Your task to perform on an android device: Go to Android settings Image 0: 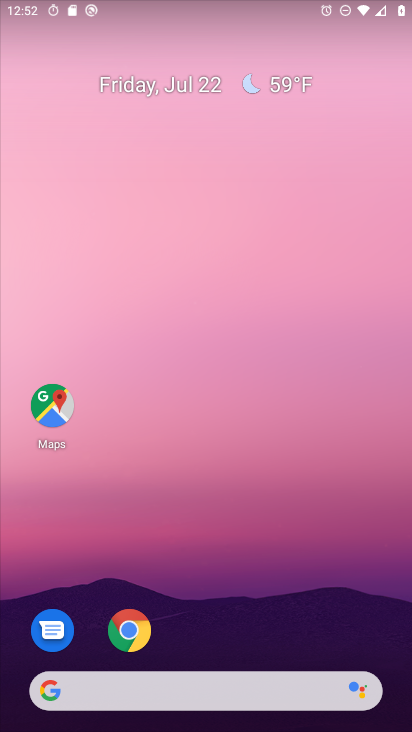
Step 0: press home button
Your task to perform on an android device: Go to Android settings Image 1: 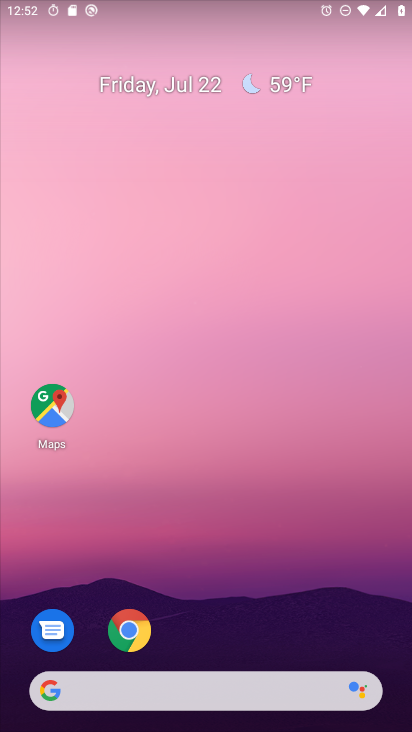
Step 1: drag from (266, 636) to (268, 203)
Your task to perform on an android device: Go to Android settings Image 2: 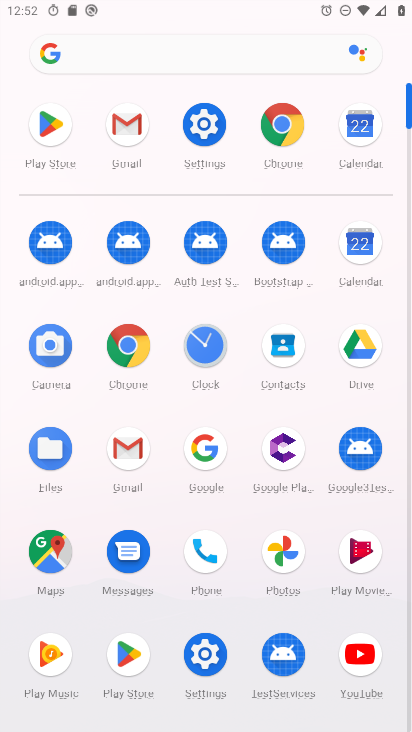
Step 2: click (208, 135)
Your task to perform on an android device: Go to Android settings Image 3: 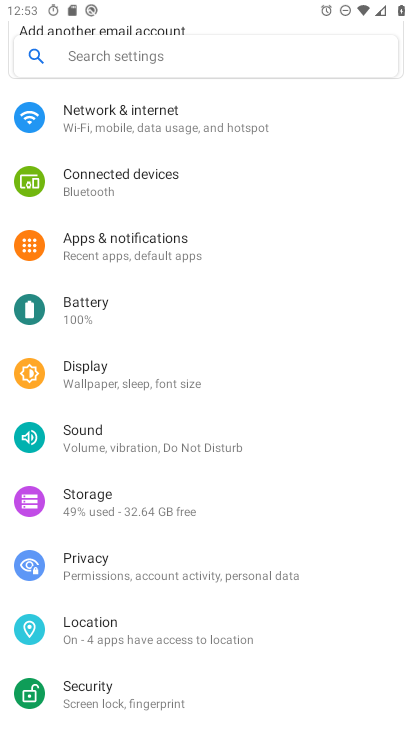
Step 3: task complete